Your task to perform on an android device: open device folders in google photos Image 0: 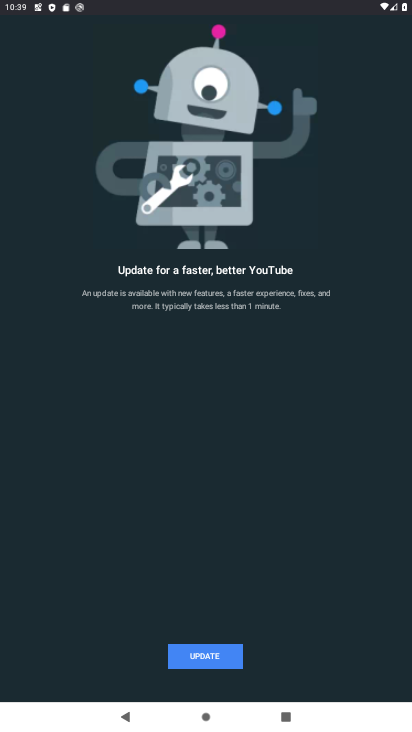
Step 0: task complete